Your task to perform on an android device: add a contact in the contacts app Image 0: 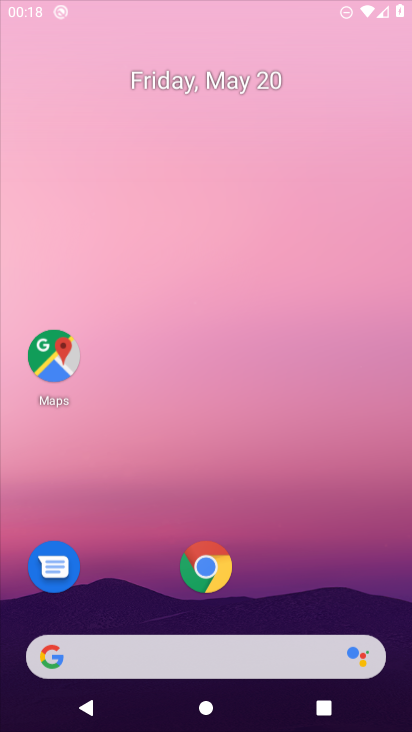
Step 0: press home button
Your task to perform on an android device: add a contact in the contacts app Image 1: 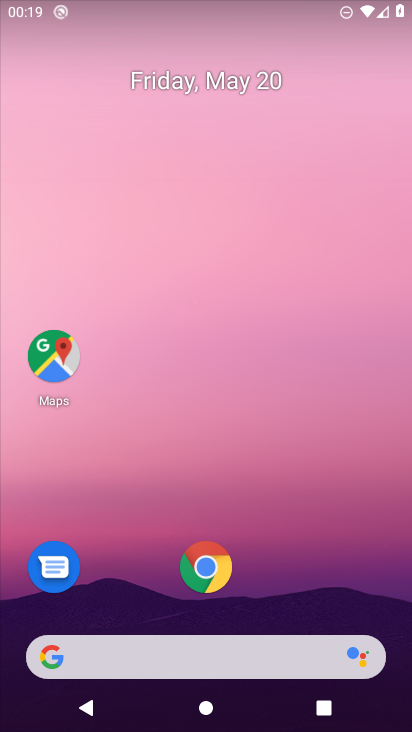
Step 1: drag from (255, 601) to (279, 1)
Your task to perform on an android device: add a contact in the contacts app Image 2: 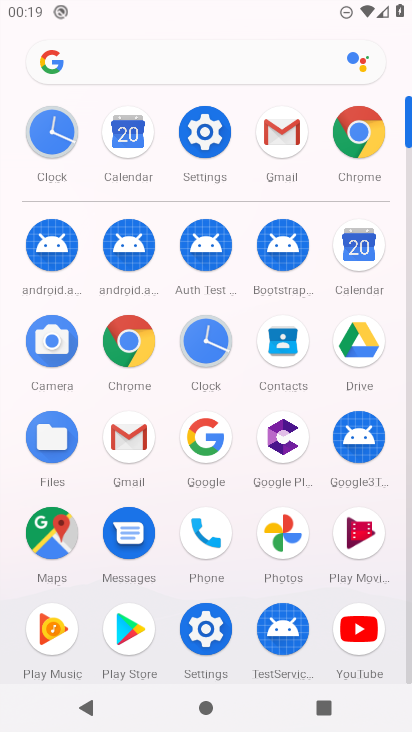
Step 2: click (277, 330)
Your task to perform on an android device: add a contact in the contacts app Image 3: 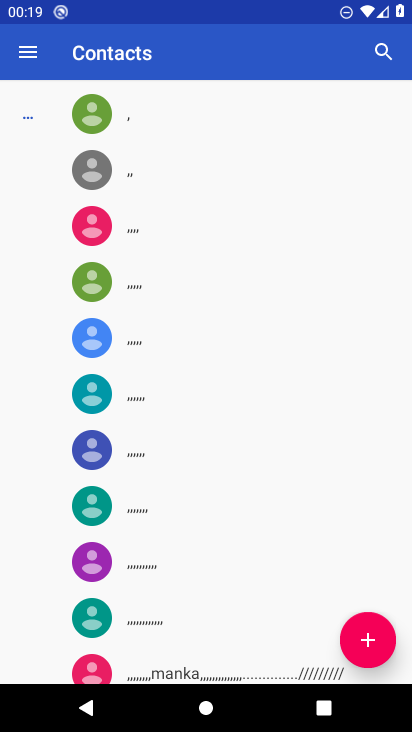
Step 3: click (371, 634)
Your task to perform on an android device: add a contact in the contacts app Image 4: 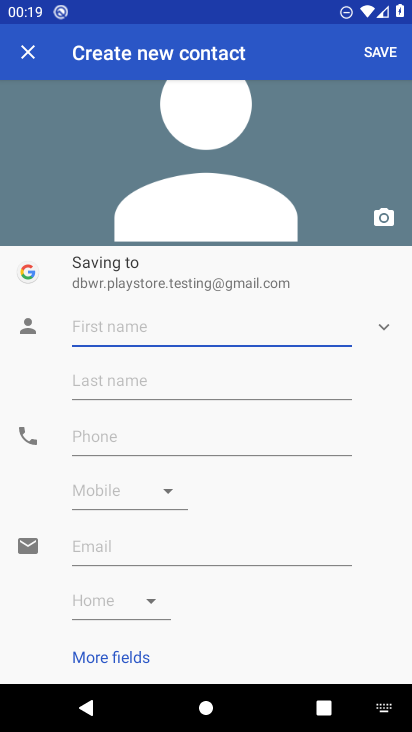
Step 4: type "gjghjhg"
Your task to perform on an android device: add a contact in the contacts app Image 5: 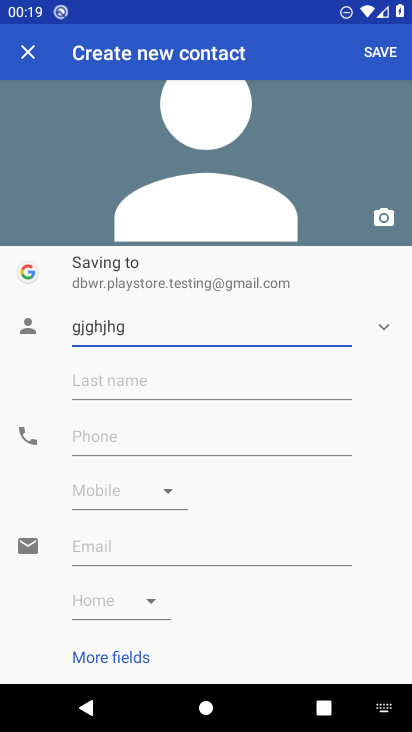
Step 5: click (373, 40)
Your task to perform on an android device: add a contact in the contacts app Image 6: 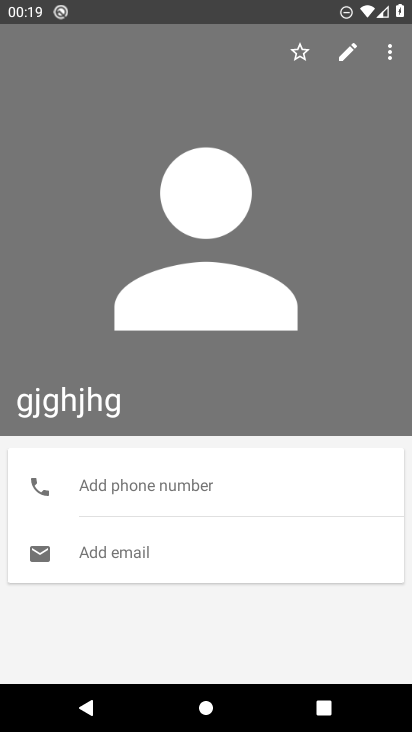
Step 6: task complete